Your task to perform on an android device: open a bookmark in the chrome app Image 0: 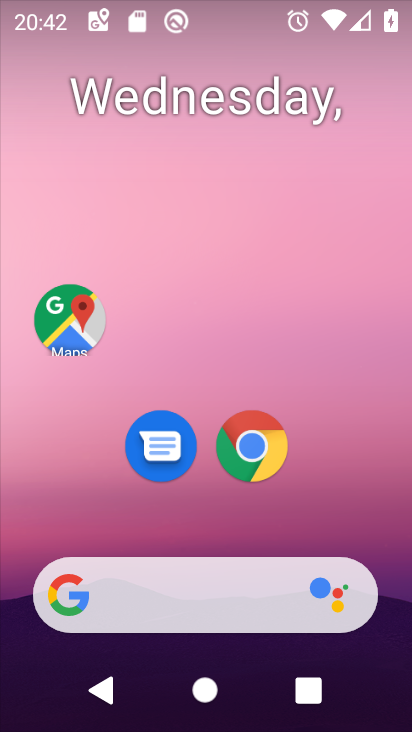
Step 0: click (257, 461)
Your task to perform on an android device: open a bookmark in the chrome app Image 1: 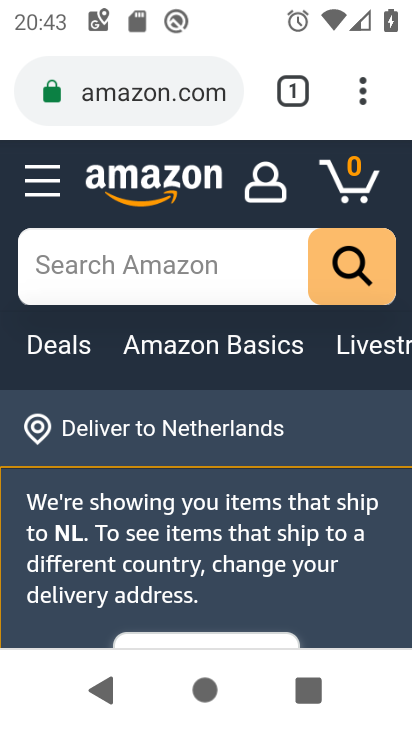
Step 1: drag from (355, 89) to (124, 343)
Your task to perform on an android device: open a bookmark in the chrome app Image 2: 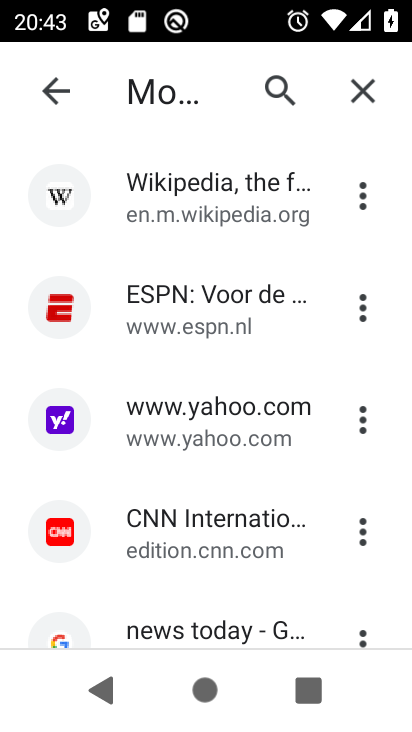
Step 2: click (166, 301)
Your task to perform on an android device: open a bookmark in the chrome app Image 3: 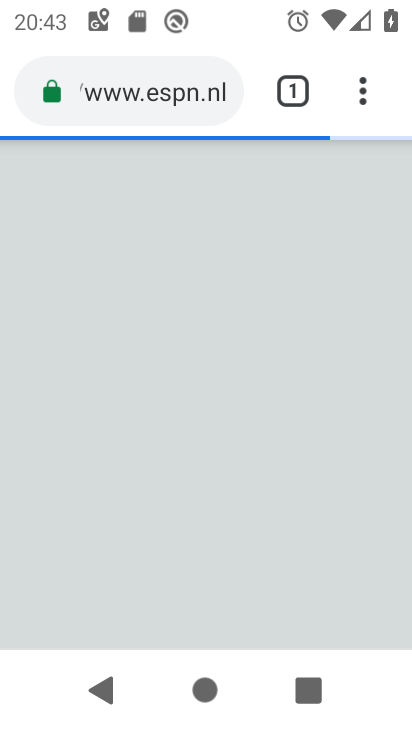
Step 3: task complete